Your task to perform on an android device: Open location settings Image 0: 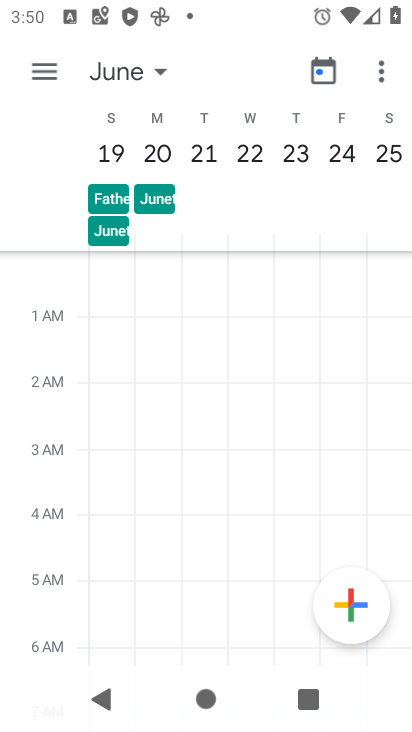
Step 0: press home button
Your task to perform on an android device: Open location settings Image 1: 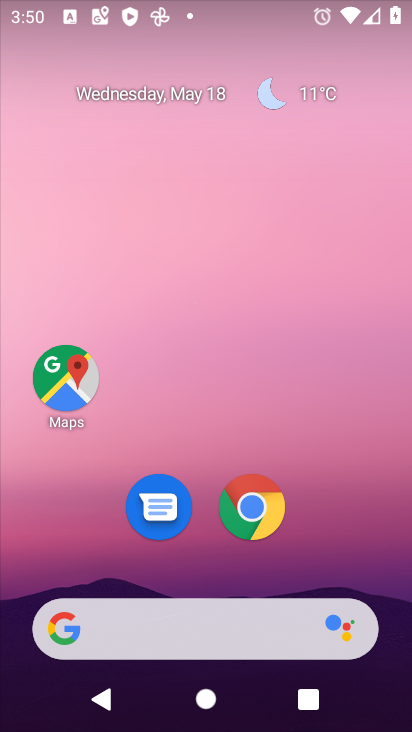
Step 1: drag from (391, 612) to (313, 110)
Your task to perform on an android device: Open location settings Image 2: 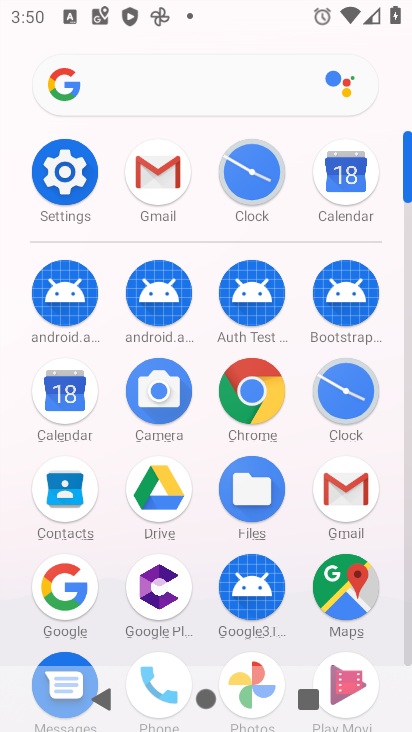
Step 2: click (407, 649)
Your task to perform on an android device: Open location settings Image 3: 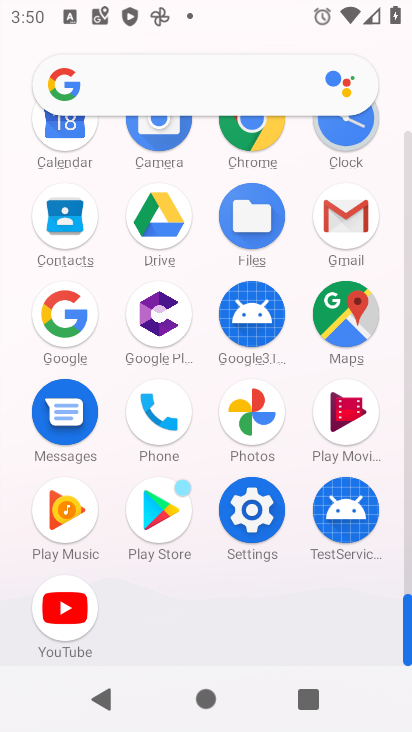
Step 3: click (254, 514)
Your task to perform on an android device: Open location settings Image 4: 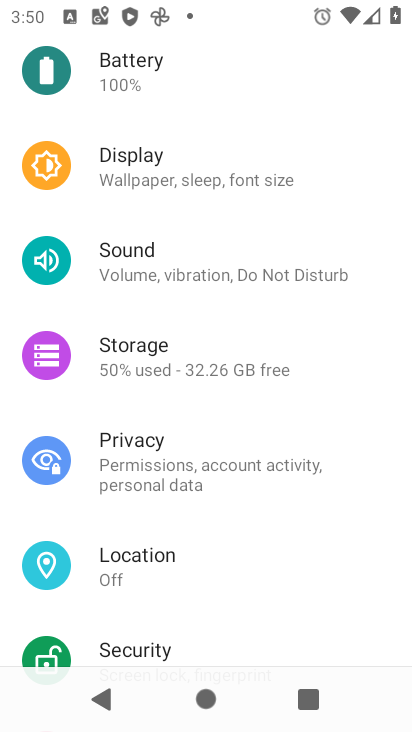
Step 4: click (143, 565)
Your task to perform on an android device: Open location settings Image 5: 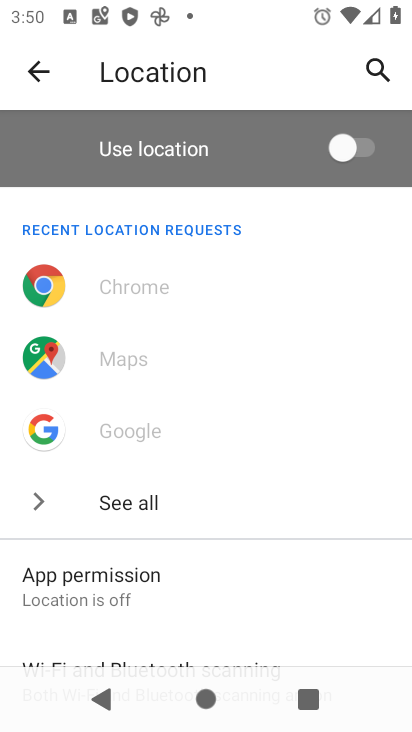
Step 5: drag from (258, 584) to (240, 308)
Your task to perform on an android device: Open location settings Image 6: 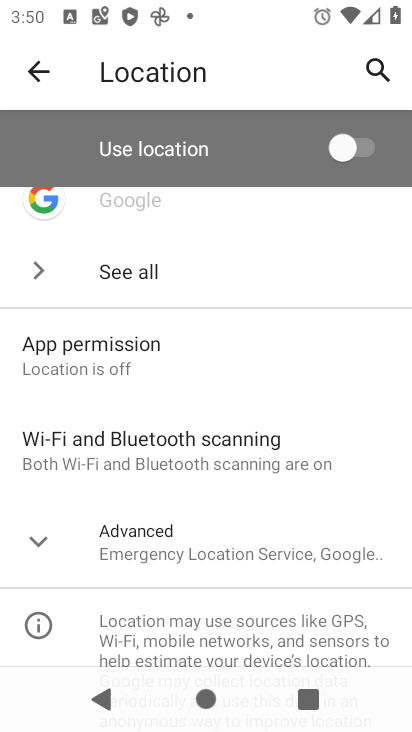
Step 6: click (38, 545)
Your task to perform on an android device: Open location settings Image 7: 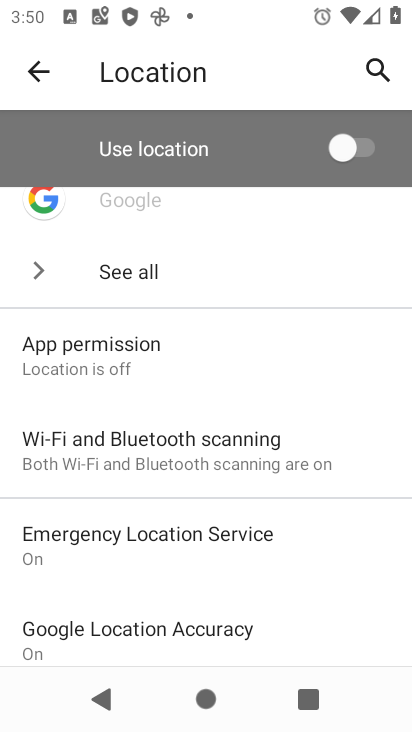
Step 7: task complete